Your task to perform on an android device: clear history in the chrome app Image 0: 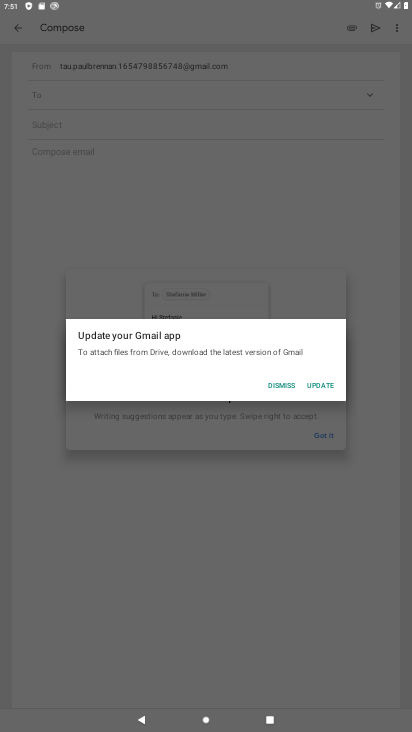
Step 0: press home button
Your task to perform on an android device: clear history in the chrome app Image 1: 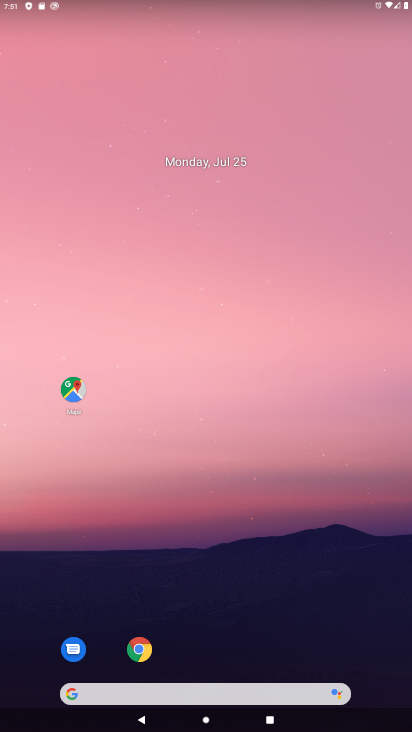
Step 1: click (139, 651)
Your task to perform on an android device: clear history in the chrome app Image 2: 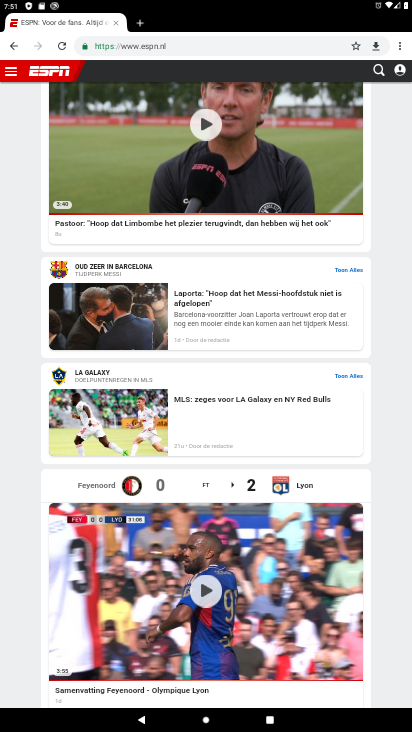
Step 2: click (399, 48)
Your task to perform on an android device: clear history in the chrome app Image 3: 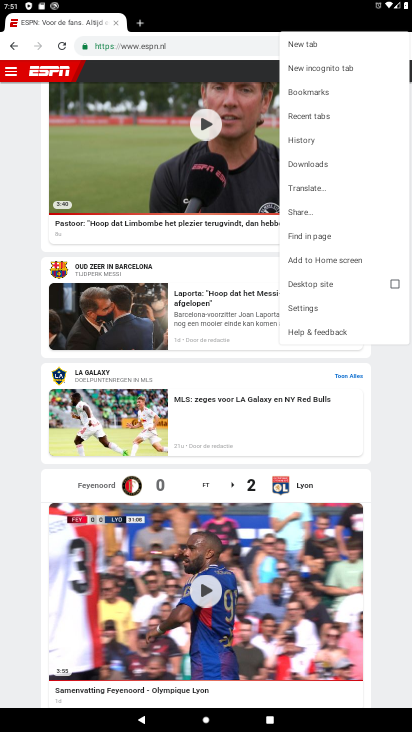
Step 3: click (301, 138)
Your task to perform on an android device: clear history in the chrome app Image 4: 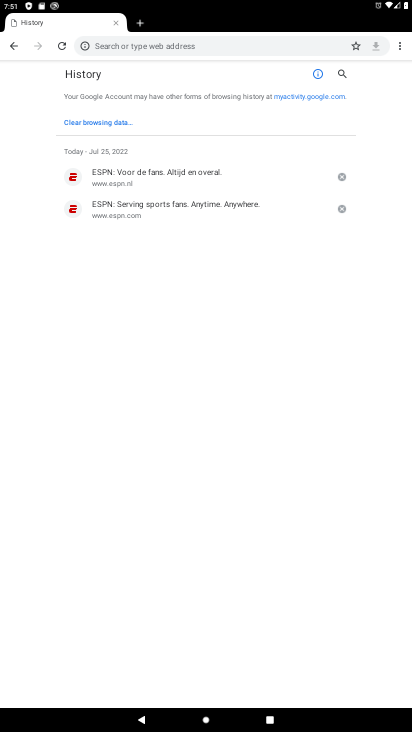
Step 4: click (90, 120)
Your task to perform on an android device: clear history in the chrome app Image 5: 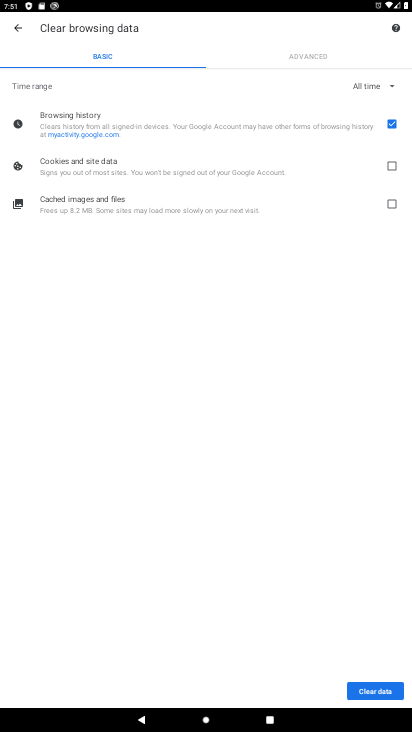
Step 5: click (372, 688)
Your task to perform on an android device: clear history in the chrome app Image 6: 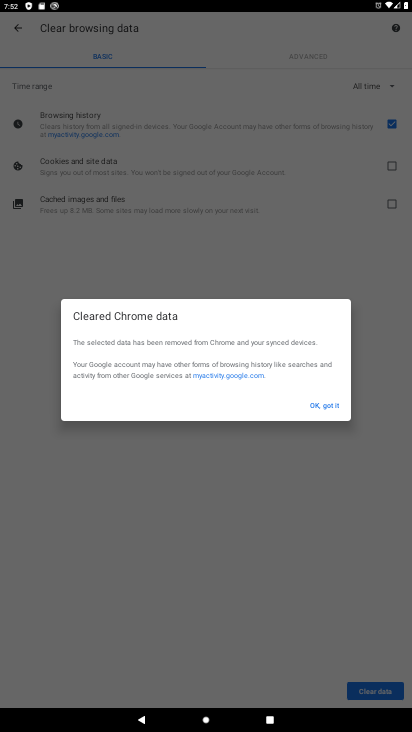
Step 6: click (320, 404)
Your task to perform on an android device: clear history in the chrome app Image 7: 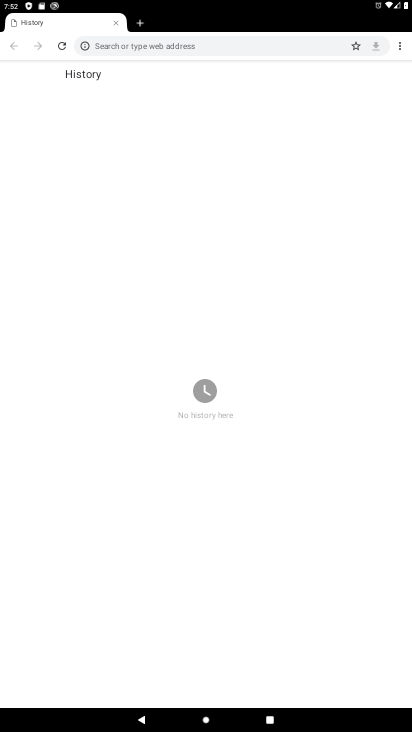
Step 7: task complete